Your task to perform on an android device: What is the recent news? Image 0: 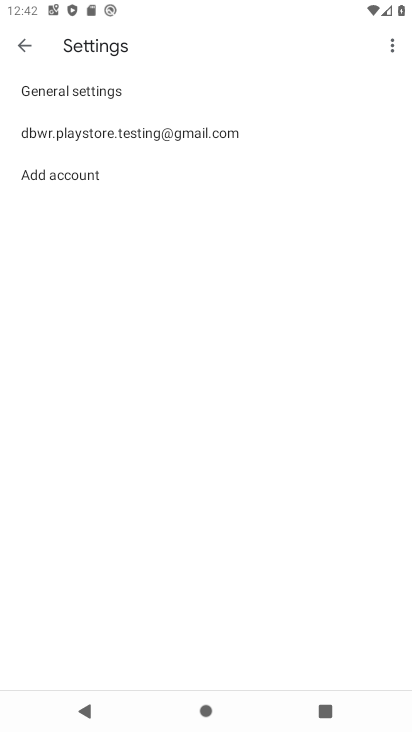
Step 0: press home button
Your task to perform on an android device: What is the recent news? Image 1: 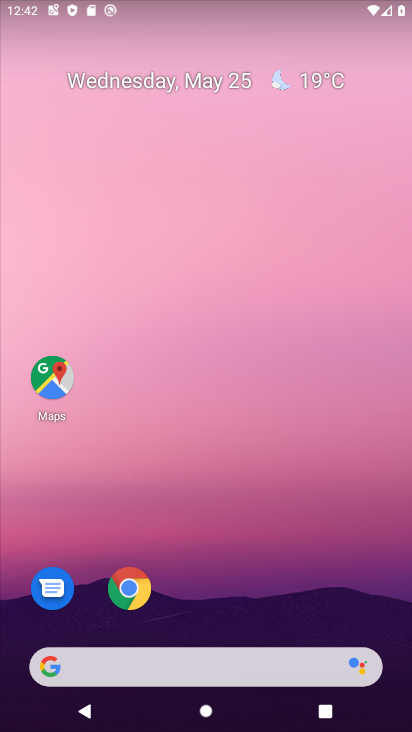
Step 1: task complete